Your task to perform on an android device: turn off data saver in the chrome app Image 0: 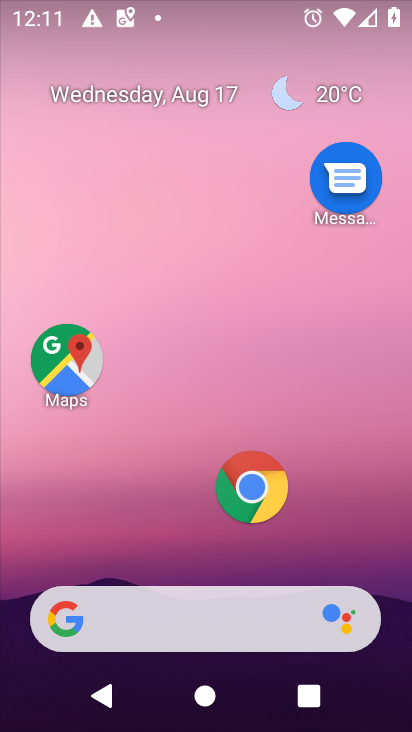
Step 0: click (247, 482)
Your task to perform on an android device: turn off data saver in the chrome app Image 1: 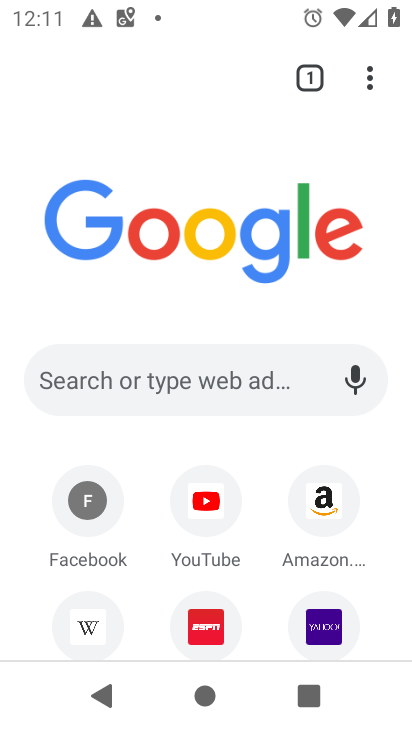
Step 1: drag from (369, 61) to (109, 549)
Your task to perform on an android device: turn off data saver in the chrome app Image 2: 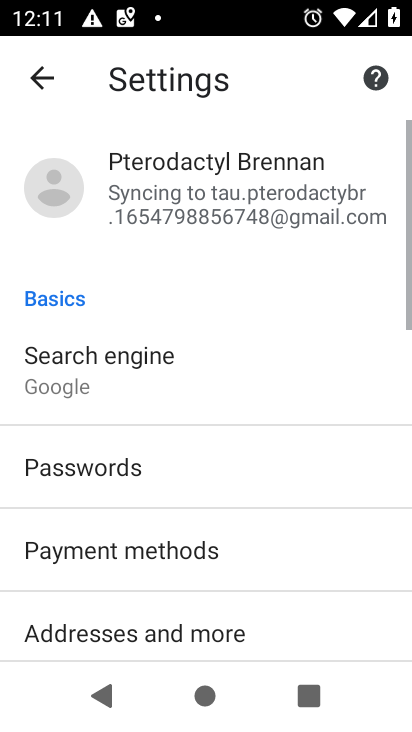
Step 2: drag from (110, 556) to (279, 15)
Your task to perform on an android device: turn off data saver in the chrome app Image 3: 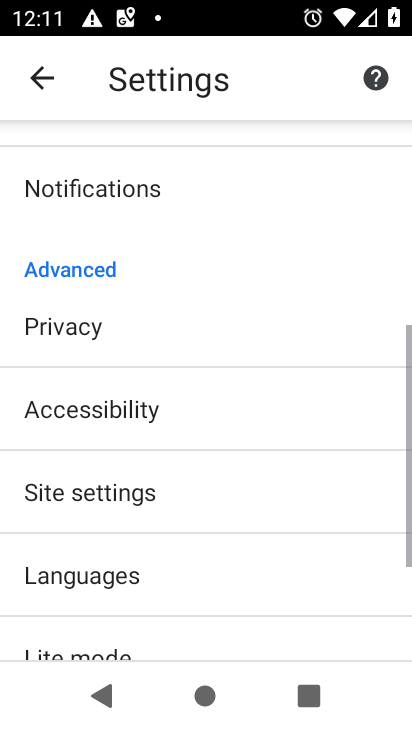
Step 3: drag from (108, 588) to (230, 25)
Your task to perform on an android device: turn off data saver in the chrome app Image 4: 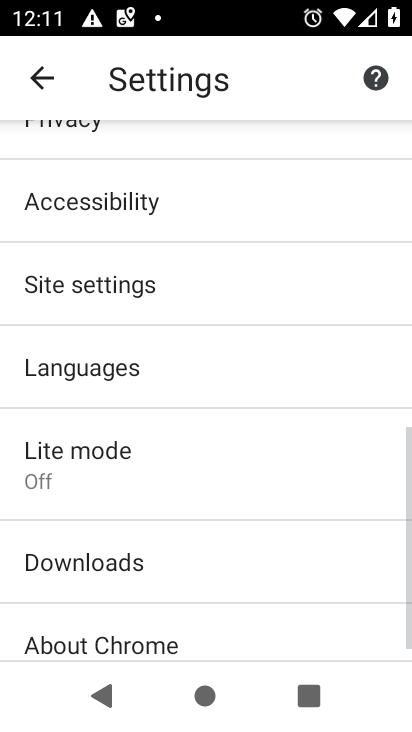
Step 4: click (107, 427)
Your task to perform on an android device: turn off data saver in the chrome app Image 5: 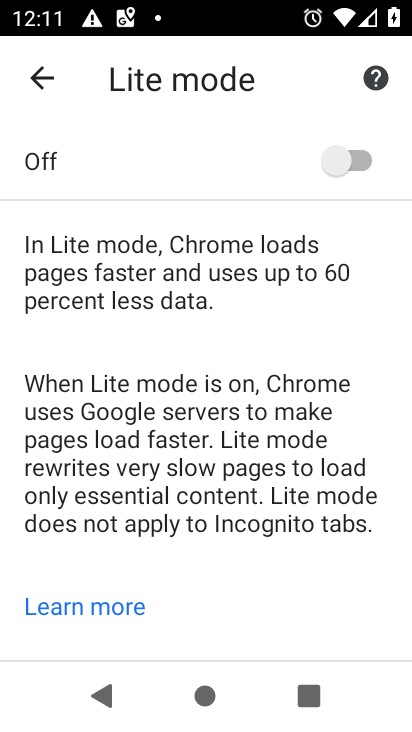
Step 5: task complete